Your task to perform on an android device: turn on translation in the chrome app Image 0: 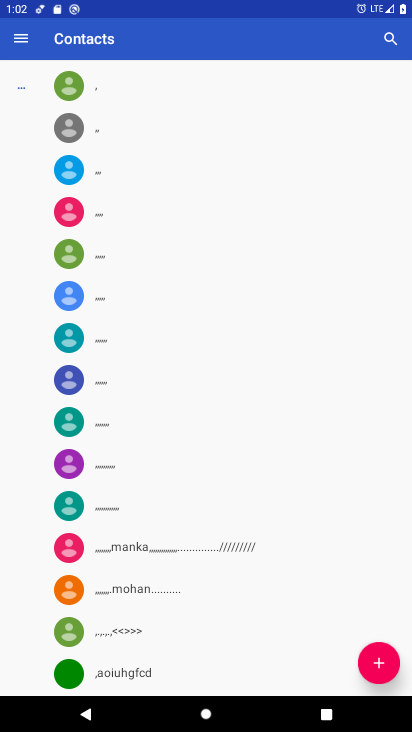
Step 0: press home button
Your task to perform on an android device: turn on translation in the chrome app Image 1: 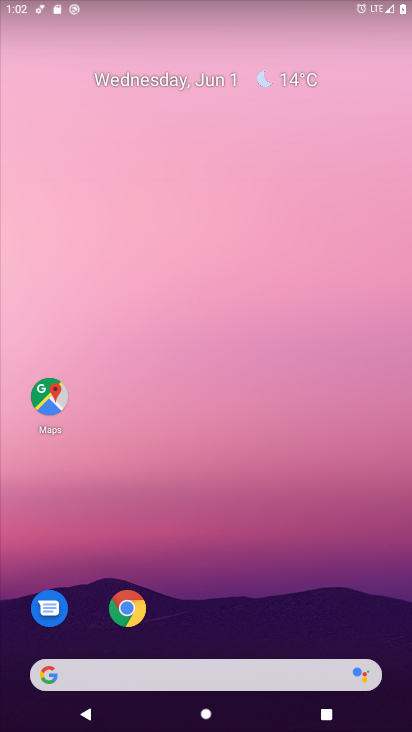
Step 1: click (120, 605)
Your task to perform on an android device: turn on translation in the chrome app Image 2: 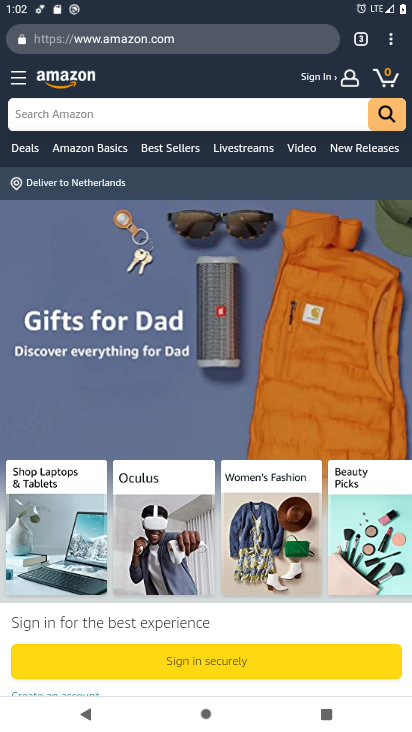
Step 2: click (395, 33)
Your task to perform on an android device: turn on translation in the chrome app Image 3: 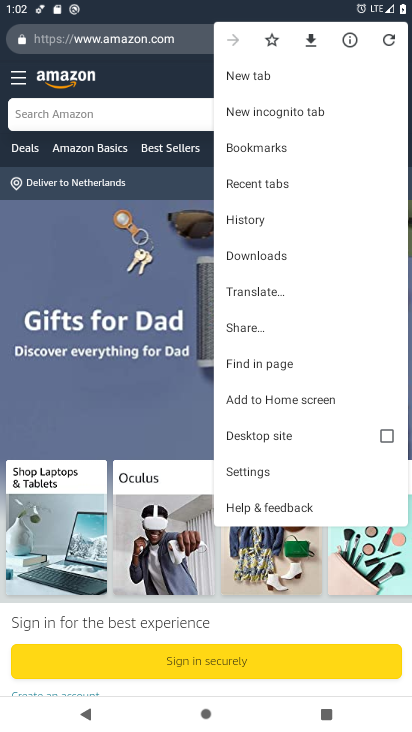
Step 3: click (267, 468)
Your task to perform on an android device: turn on translation in the chrome app Image 4: 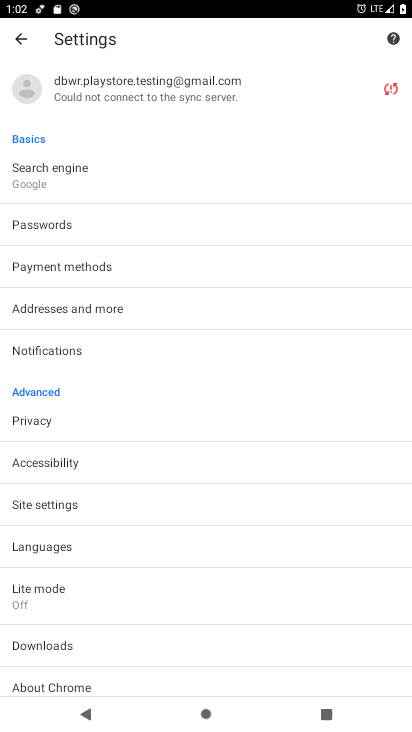
Step 4: drag from (74, 591) to (125, 322)
Your task to perform on an android device: turn on translation in the chrome app Image 5: 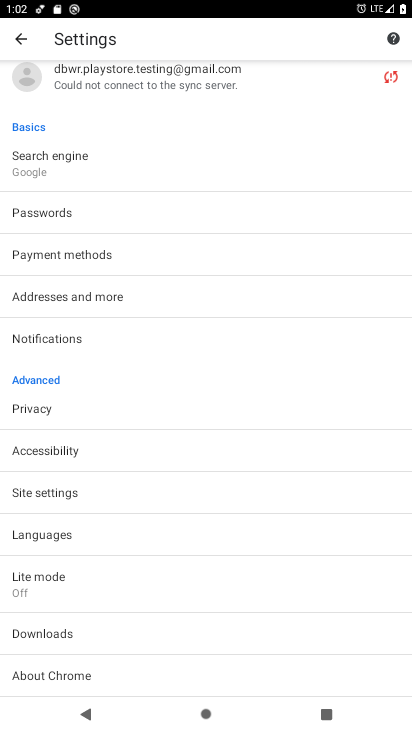
Step 5: click (54, 528)
Your task to perform on an android device: turn on translation in the chrome app Image 6: 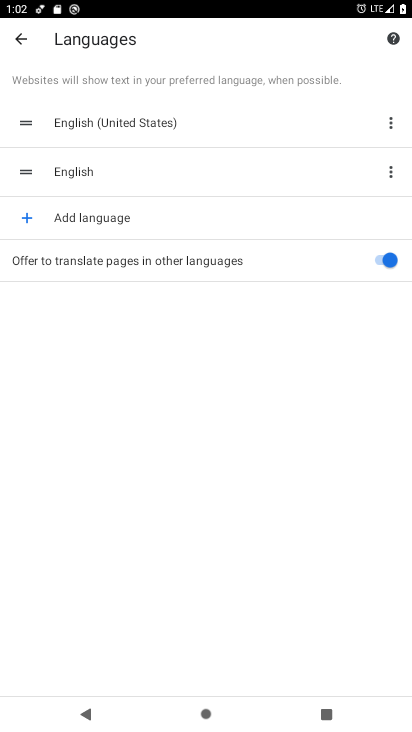
Step 6: task complete